Your task to perform on an android device: toggle improve location accuracy Image 0: 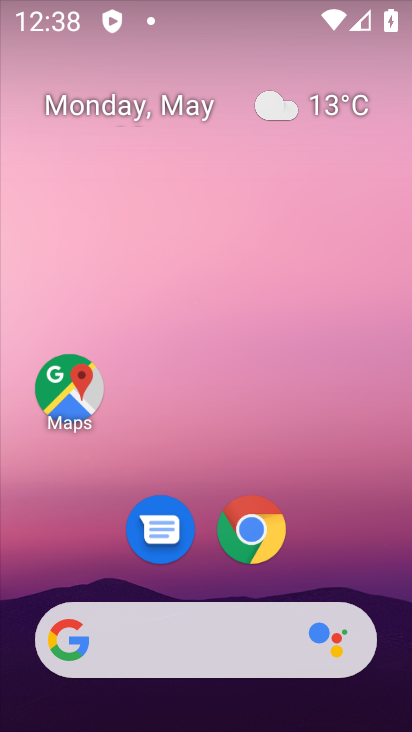
Step 0: drag from (64, 609) to (222, 1)
Your task to perform on an android device: toggle improve location accuracy Image 1: 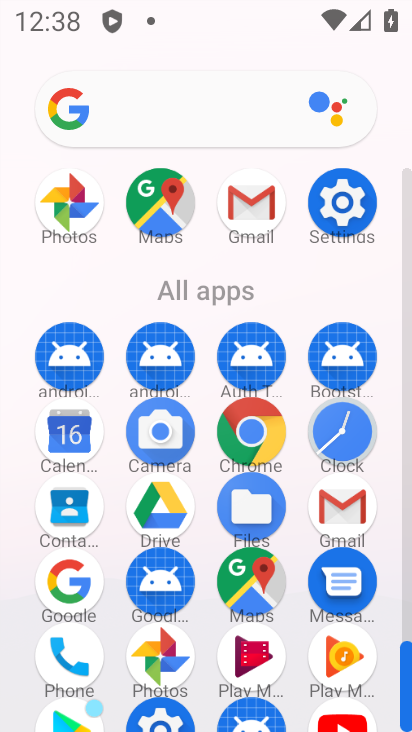
Step 1: drag from (184, 587) to (275, 244)
Your task to perform on an android device: toggle improve location accuracy Image 2: 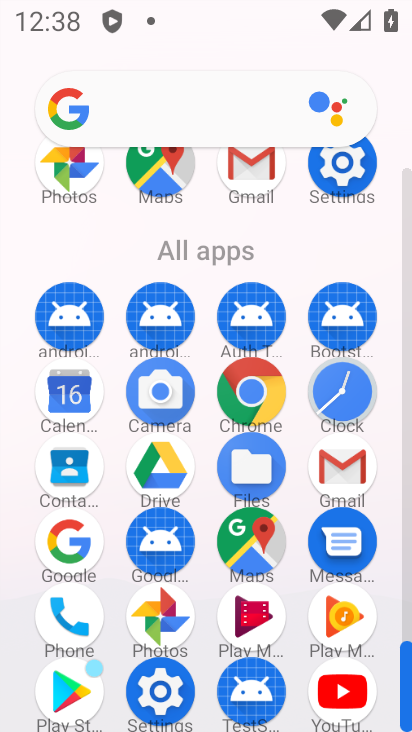
Step 2: click (143, 701)
Your task to perform on an android device: toggle improve location accuracy Image 3: 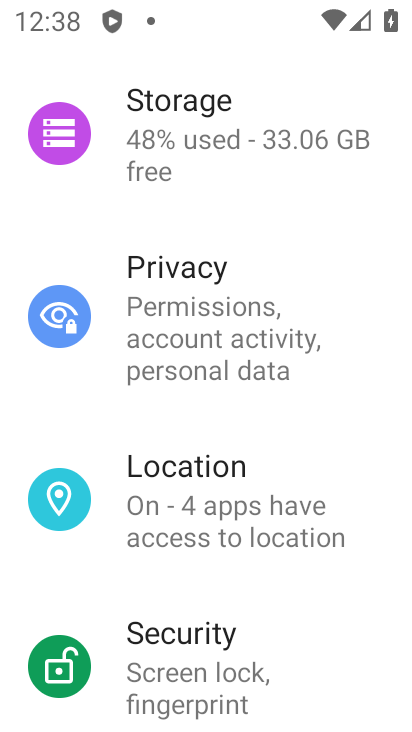
Step 3: drag from (184, 670) to (232, 484)
Your task to perform on an android device: toggle improve location accuracy Image 4: 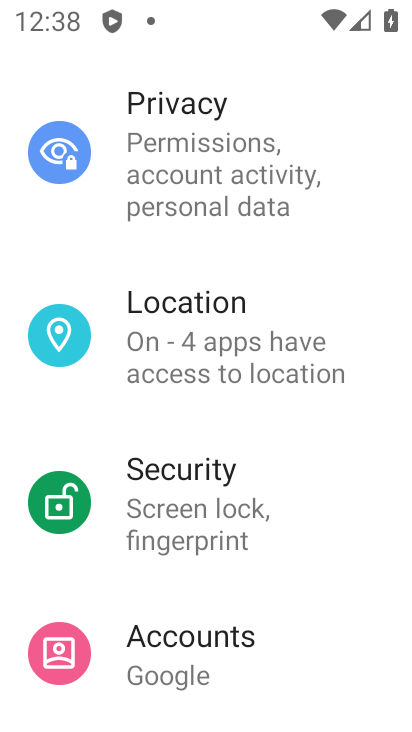
Step 4: click (220, 350)
Your task to perform on an android device: toggle improve location accuracy Image 5: 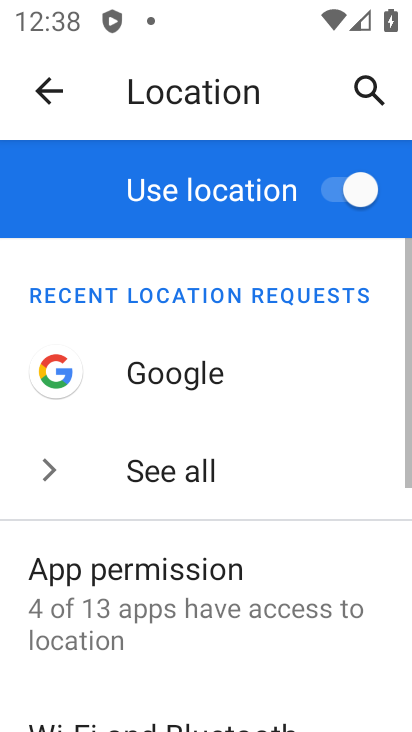
Step 5: drag from (171, 662) to (249, 385)
Your task to perform on an android device: toggle improve location accuracy Image 6: 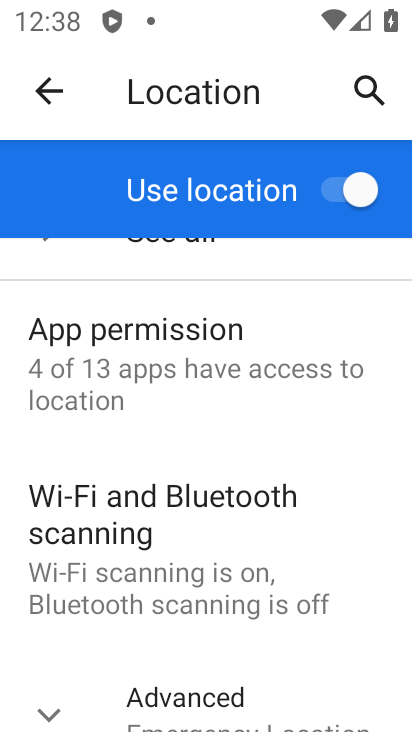
Step 6: click (177, 692)
Your task to perform on an android device: toggle improve location accuracy Image 7: 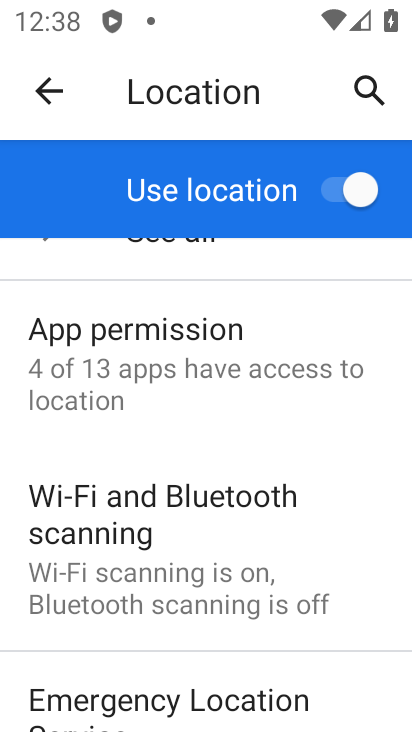
Step 7: drag from (182, 659) to (247, 413)
Your task to perform on an android device: toggle improve location accuracy Image 8: 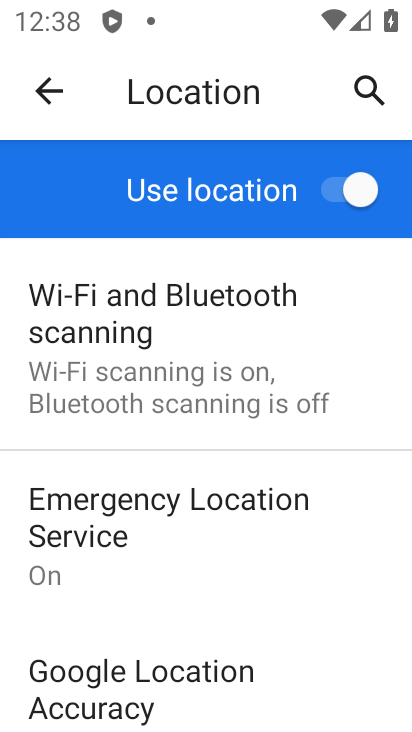
Step 8: click (190, 686)
Your task to perform on an android device: toggle improve location accuracy Image 9: 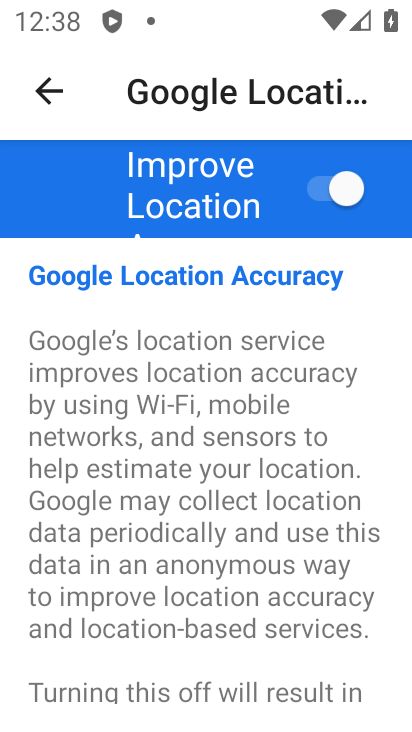
Step 9: drag from (216, 712) to (294, 356)
Your task to perform on an android device: toggle improve location accuracy Image 10: 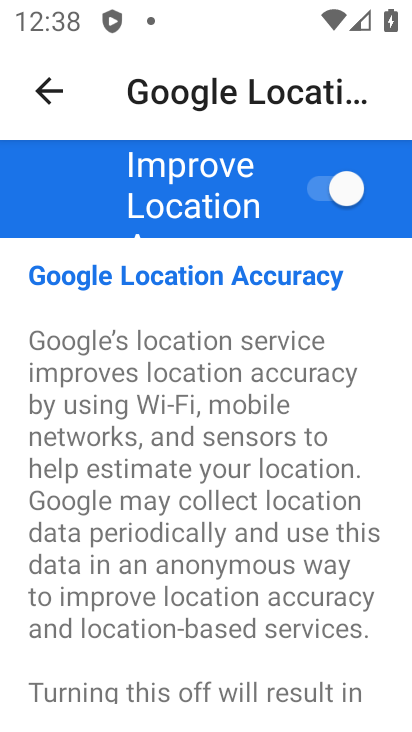
Step 10: click (324, 181)
Your task to perform on an android device: toggle improve location accuracy Image 11: 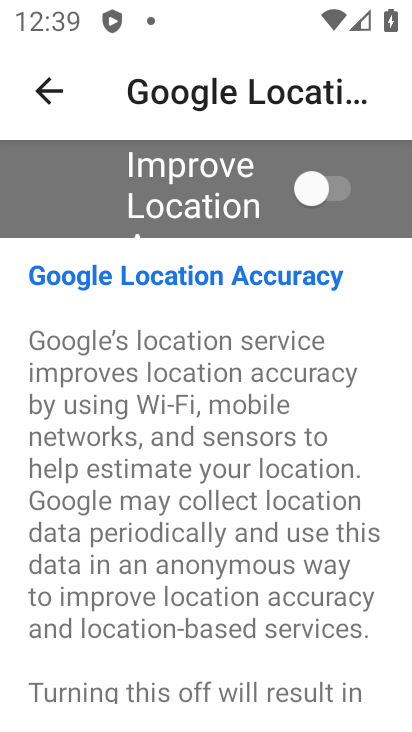
Step 11: task complete